Your task to perform on an android device: See recent photos Image 0: 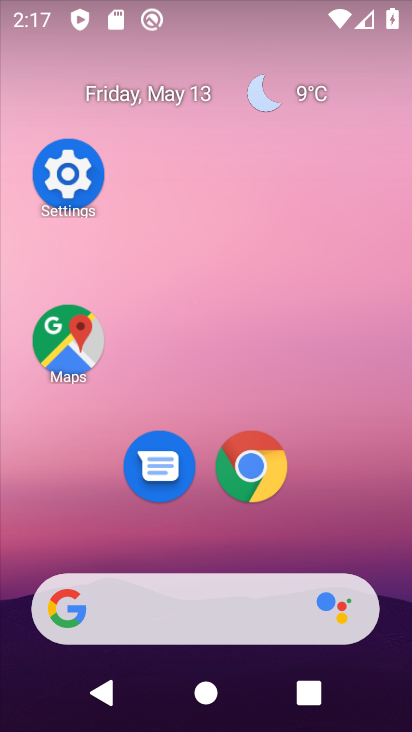
Step 0: drag from (244, 531) to (255, 141)
Your task to perform on an android device: See recent photos Image 1: 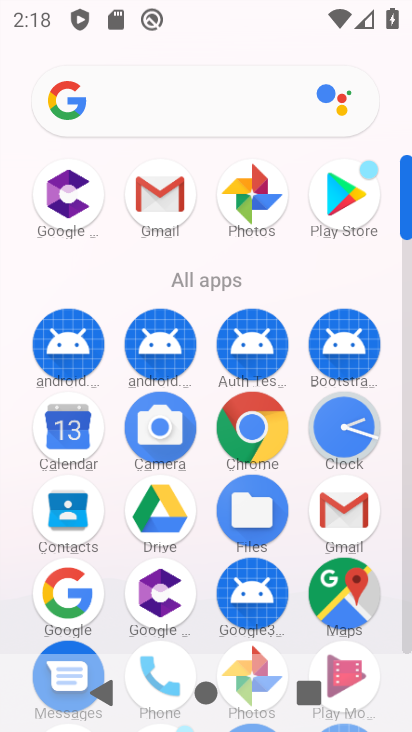
Step 1: click (263, 180)
Your task to perform on an android device: See recent photos Image 2: 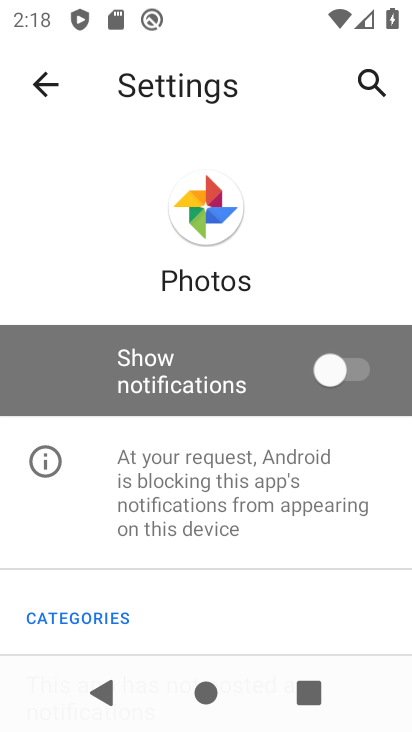
Step 2: click (42, 93)
Your task to perform on an android device: See recent photos Image 3: 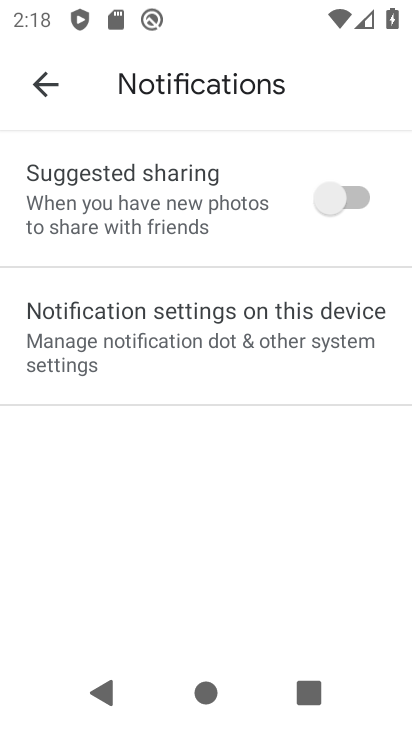
Step 3: click (37, 90)
Your task to perform on an android device: See recent photos Image 4: 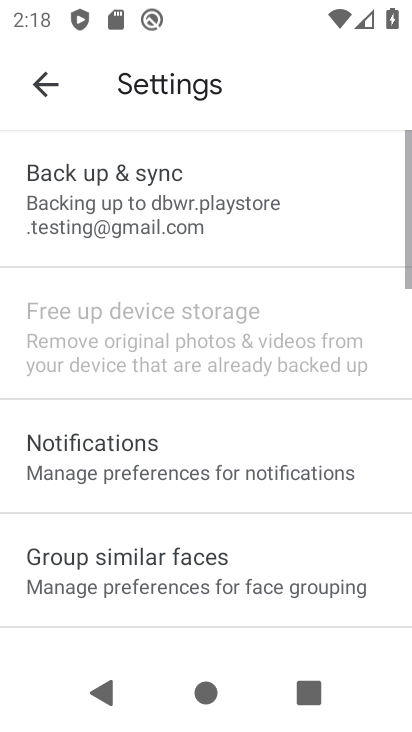
Step 4: click (51, 86)
Your task to perform on an android device: See recent photos Image 5: 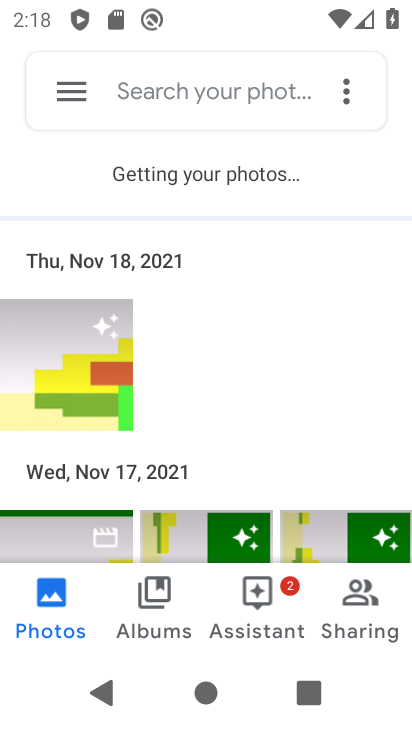
Step 5: click (77, 325)
Your task to perform on an android device: See recent photos Image 6: 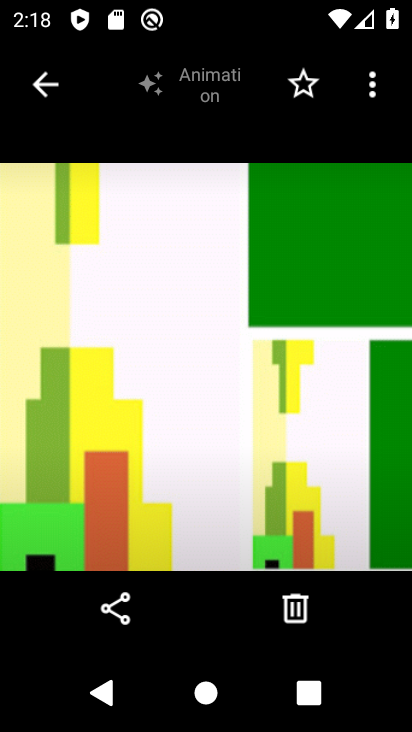
Step 6: task complete